Your task to perform on an android device: Open battery settings Image 0: 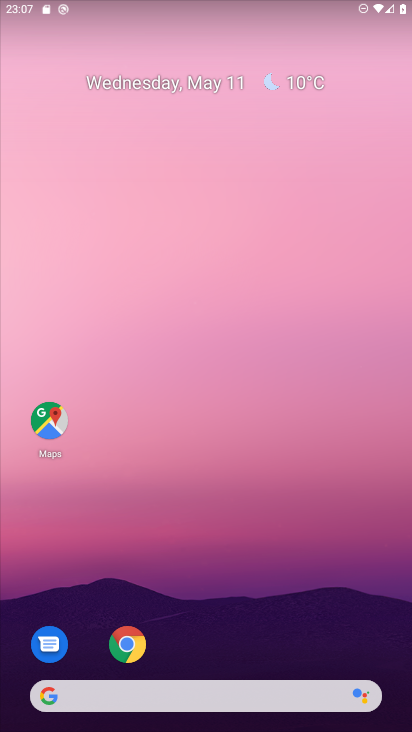
Step 0: click (391, 627)
Your task to perform on an android device: Open battery settings Image 1: 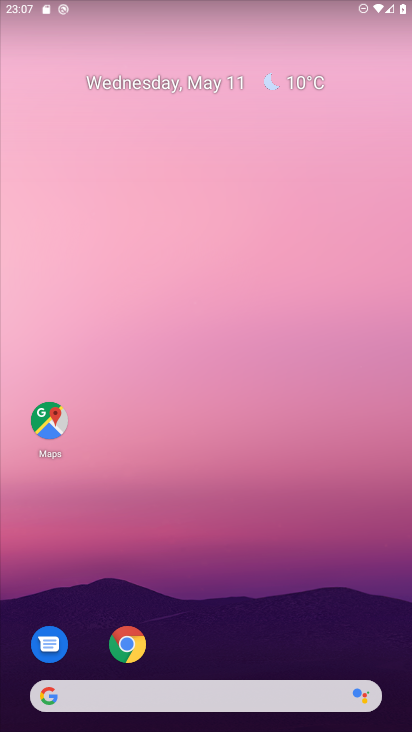
Step 1: drag from (391, 627) to (315, 33)
Your task to perform on an android device: Open battery settings Image 2: 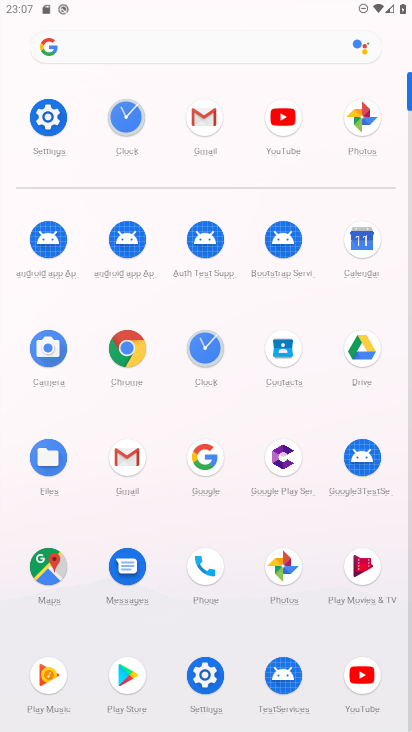
Step 2: click (54, 113)
Your task to perform on an android device: Open battery settings Image 3: 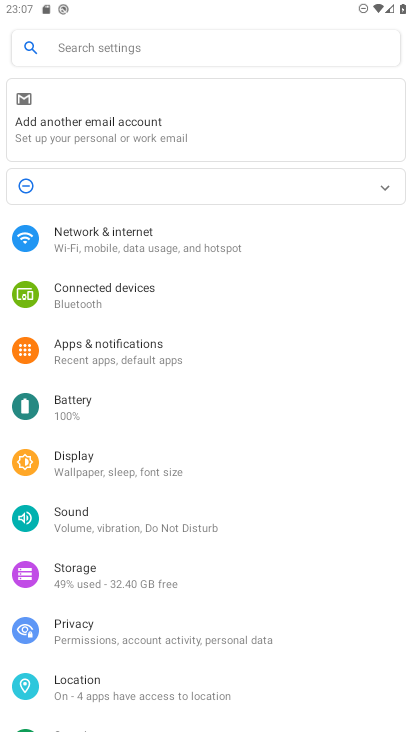
Step 3: click (67, 412)
Your task to perform on an android device: Open battery settings Image 4: 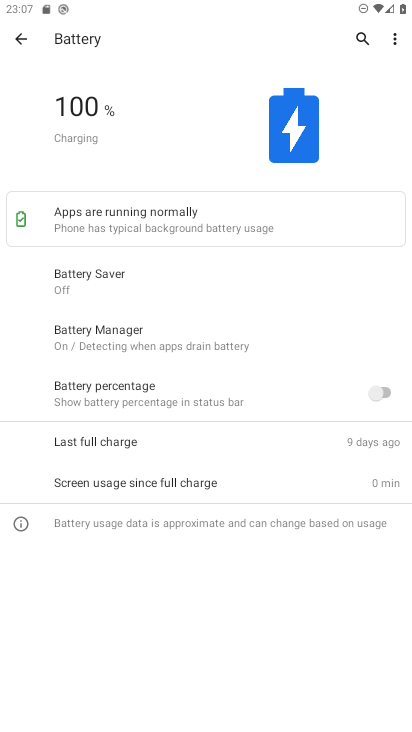
Step 4: task complete